Your task to perform on an android device: What is the news today? Image 0: 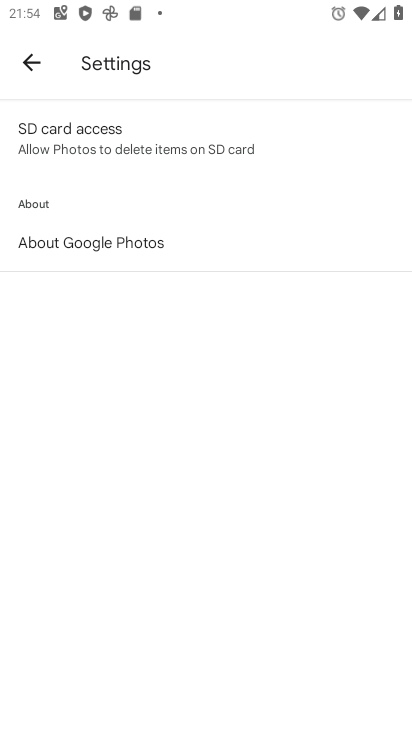
Step 0: press home button
Your task to perform on an android device: What is the news today? Image 1: 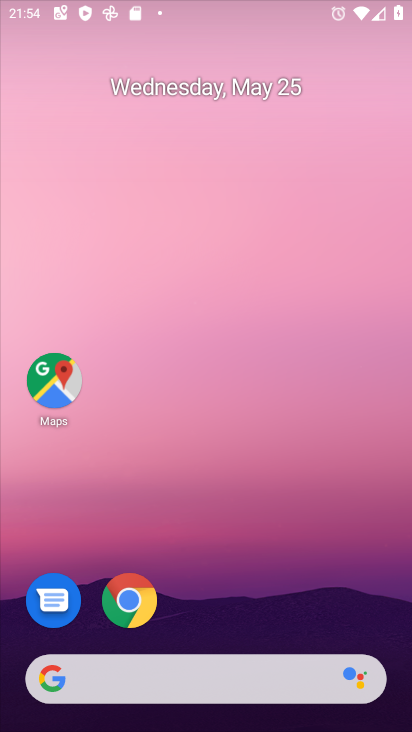
Step 1: drag from (342, 585) to (351, 155)
Your task to perform on an android device: What is the news today? Image 2: 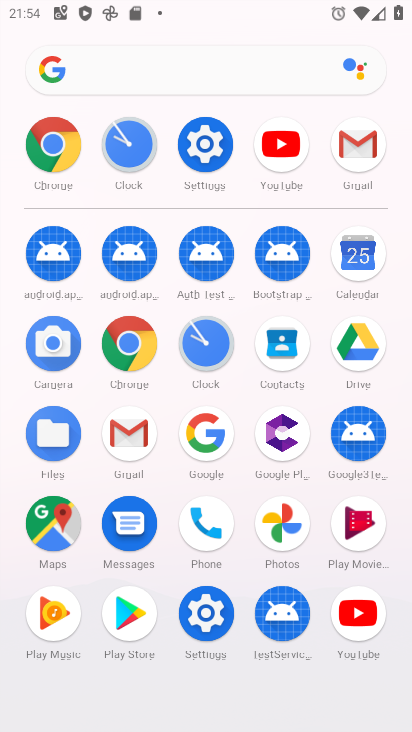
Step 2: click (134, 355)
Your task to perform on an android device: What is the news today? Image 3: 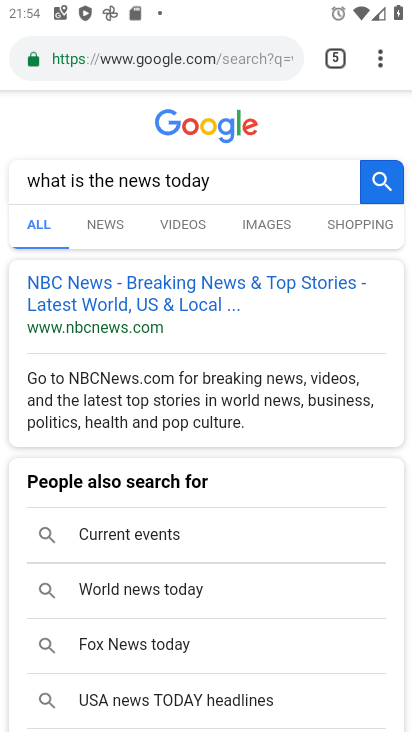
Step 3: click (230, 51)
Your task to perform on an android device: What is the news today? Image 4: 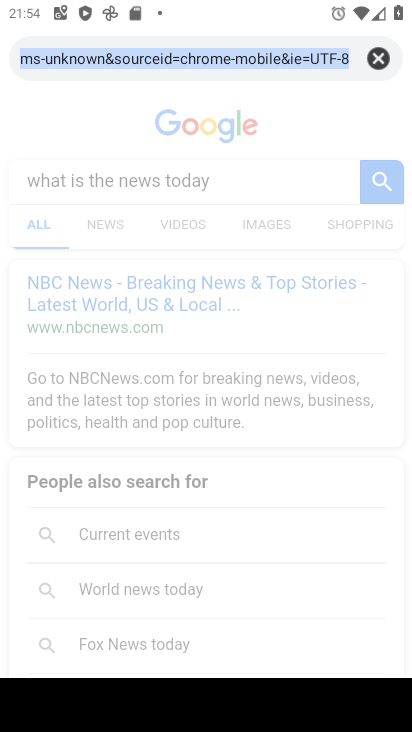
Step 4: click (380, 55)
Your task to perform on an android device: What is the news today? Image 5: 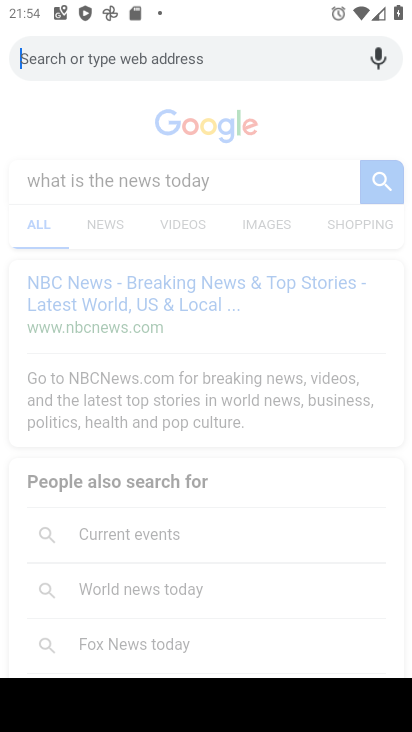
Step 5: type "what is the news today"
Your task to perform on an android device: What is the news today? Image 6: 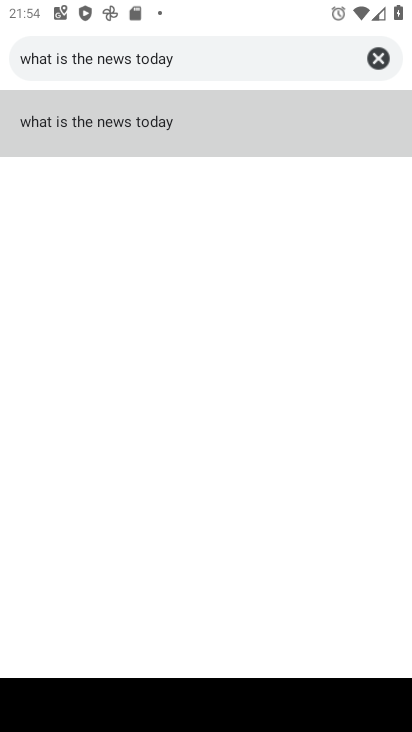
Step 6: click (164, 122)
Your task to perform on an android device: What is the news today? Image 7: 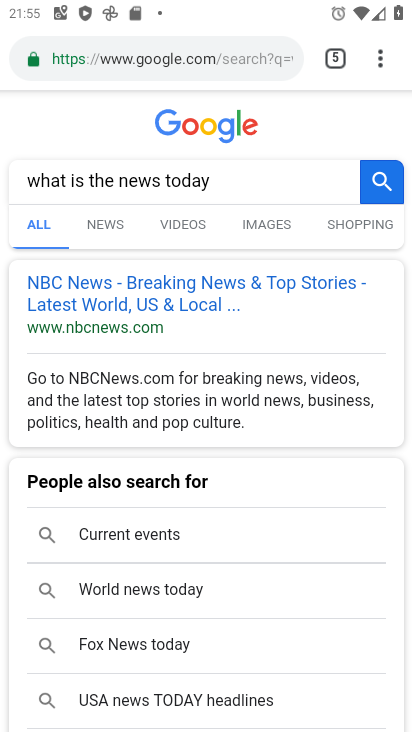
Step 7: task complete